Your task to perform on an android device: see sites visited before in the chrome app Image 0: 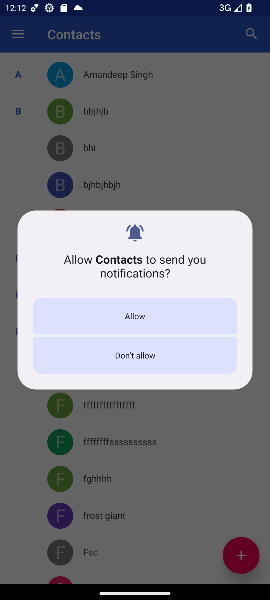
Step 0: press home button
Your task to perform on an android device: see sites visited before in the chrome app Image 1: 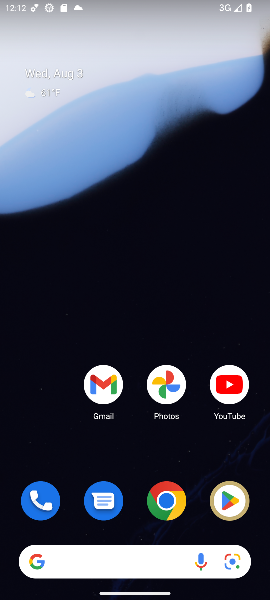
Step 1: click (162, 500)
Your task to perform on an android device: see sites visited before in the chrome app Image 2: 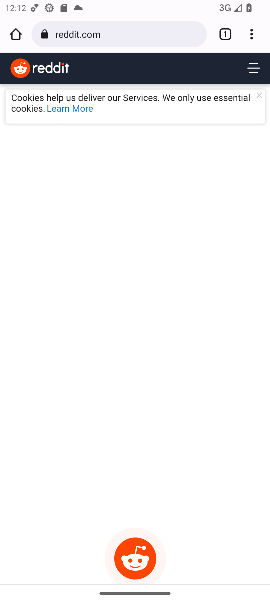
Step 2: click (256, 39)
Your task to perform on an android device: see sites visited before in the chrome app Image 3: 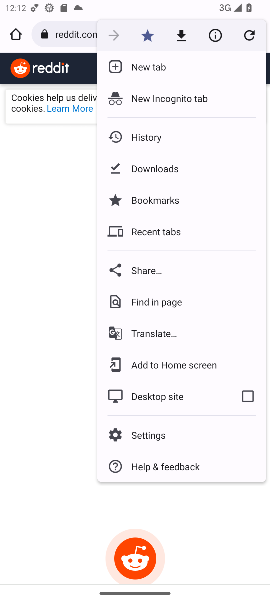
Step 3: click (149, 139)
Your task to perform on an android device: see sites visited before in the chrome app Image 4: 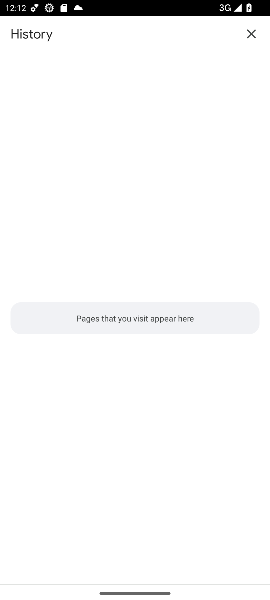
Step 4: task complete